Your task to perform on an android device: Open Android settings Image 0: 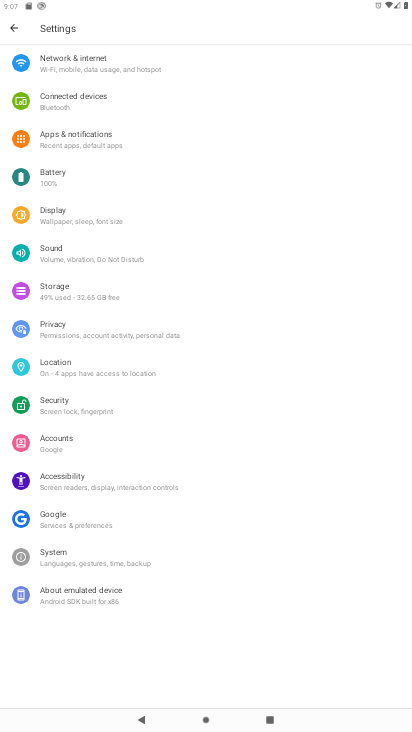
Step 0: press home button
Your task to perform on an android device: Open Android settings Image 1: 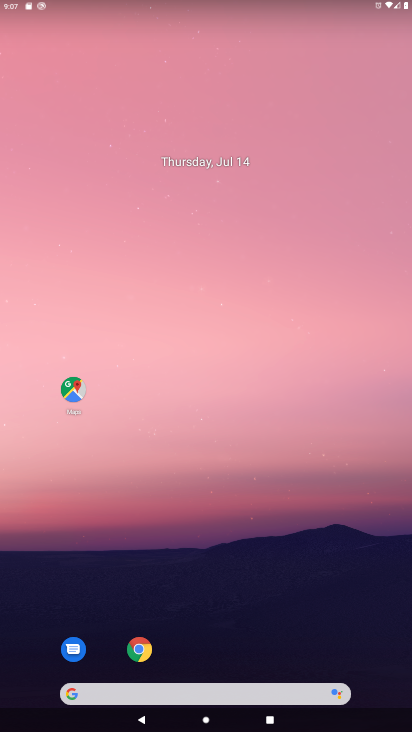
Step 1: drag from (202, 567) to (172, 1)
Your task to perform on an android device: Open Android settings Image 2: 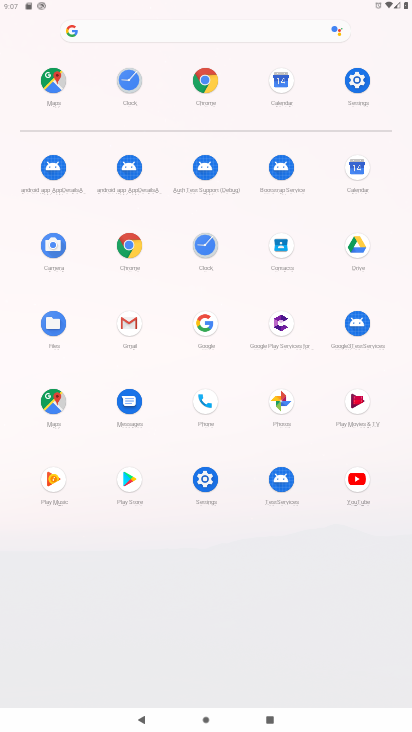
Step 2: click (206, 490)
Your task to perform on an android device: Open Android settings Image 3: 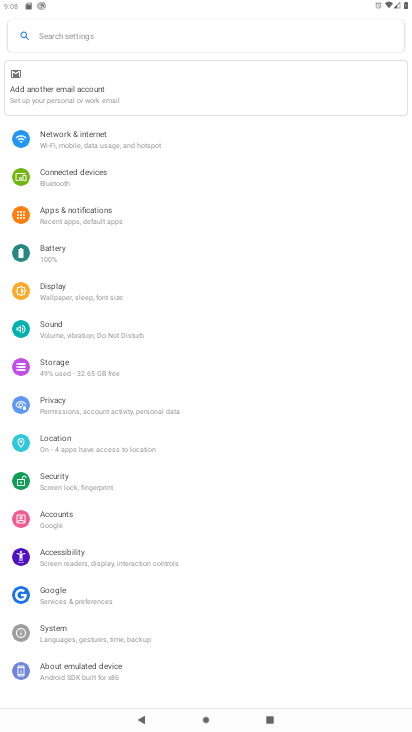
Step 3: drag from (90, 588) to (98, 506)
Your task to perform on an android device: Open Android settings Image 4: 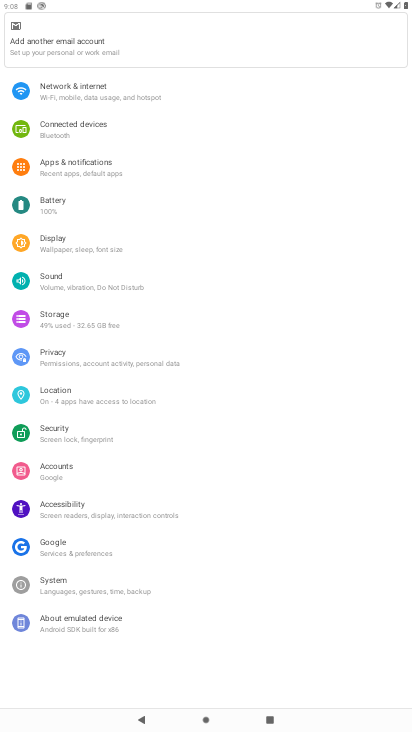
Step 4: click (70, 629)
Your task to perform on an android device: Open Android settings Image 5: 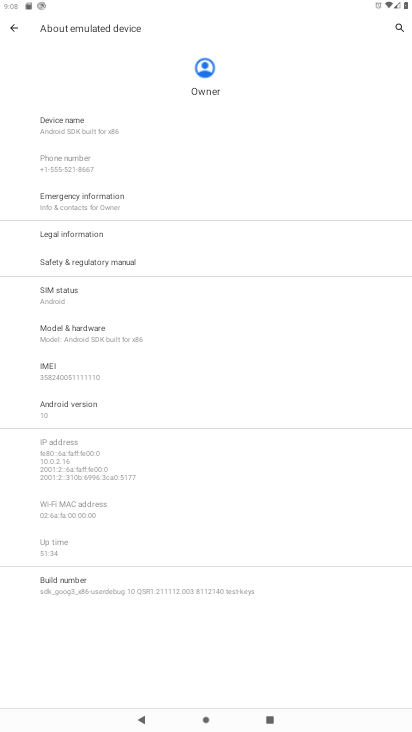
Step 5: click (81, 410)
Your task to perform on an android device: Open Android settings Image 6: 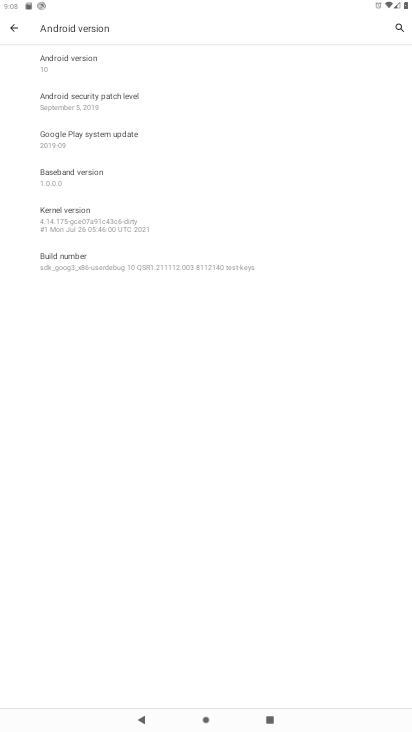
Step 6: task complete